Your task to perform on an android device: empty trash in google photos Image 0: 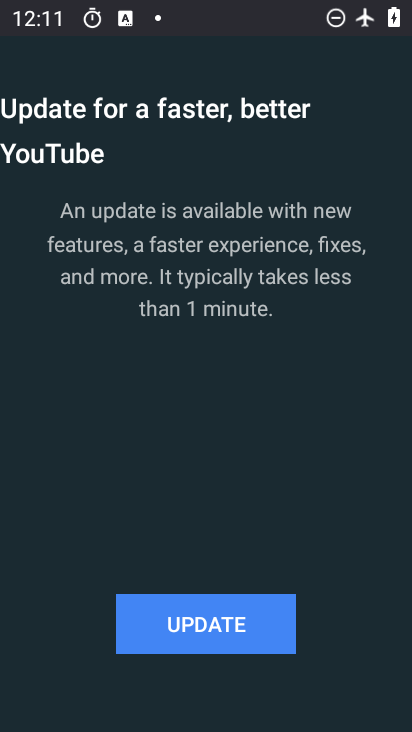
Step 0: press home button
Your task to perform on an android device: empty trash in google photos Image 1: 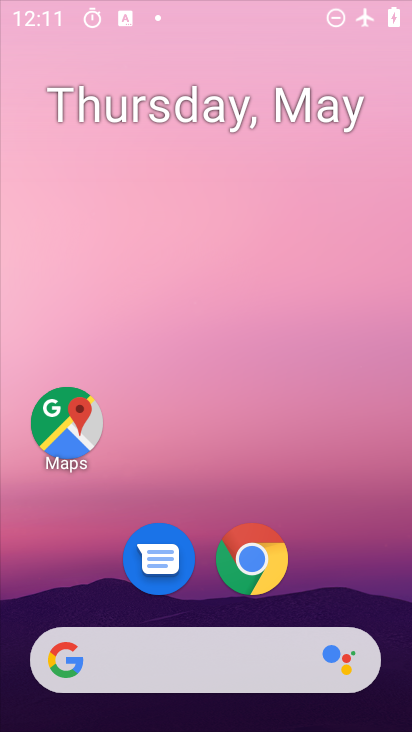
Step 1: drag from (238, 660) to (337, 121)
Your task to perform on an android device: empty trash in google photos Image 2: 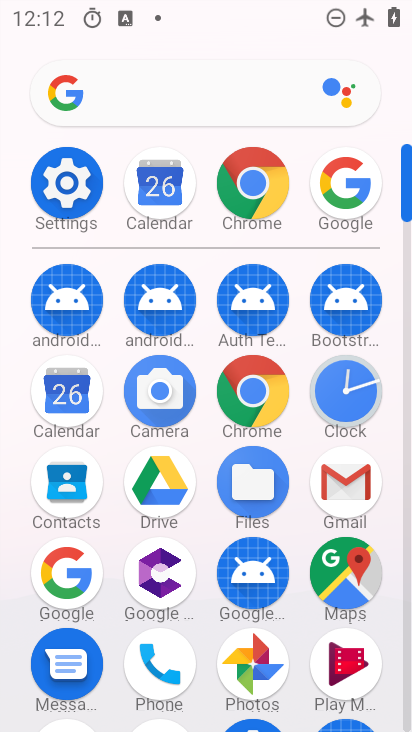
Step 2: drag from (257, 586) to (257, 243)
Your task to perform on an android device: empty trash in google photos Image 3: 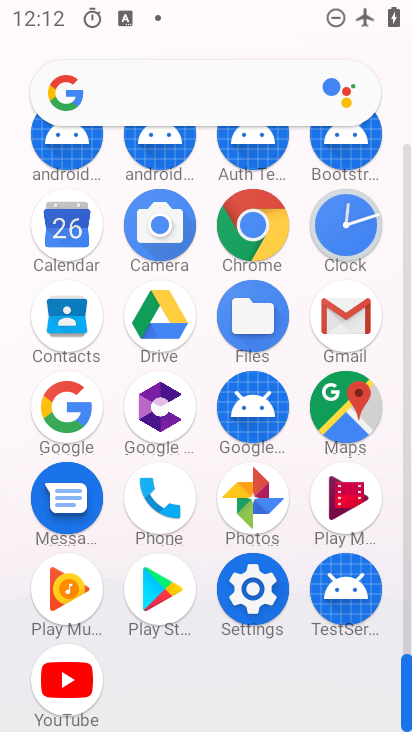
Step 3: click (260, 502)
Your task to perform on an android device: empty trash in google photos Image 4: 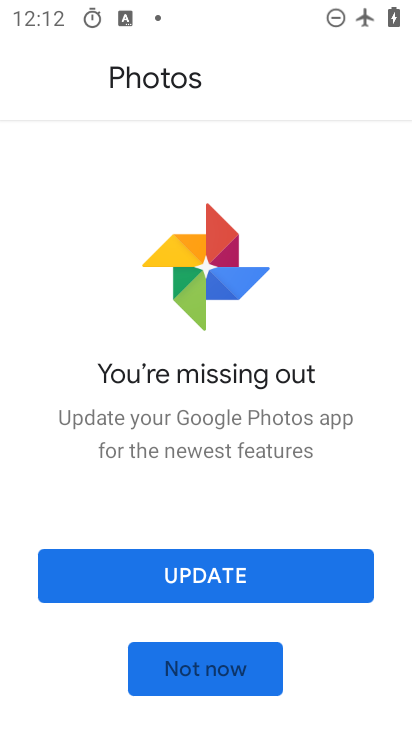
Step 4: click (242, 672)
Your task to perform on an android device: empty trash in google photos Image 5: 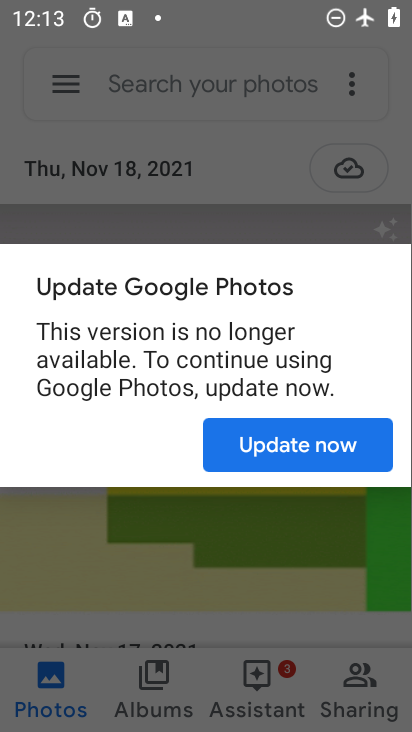
Step 5: task complete